Your task to perform on an android device: toggle javascript in the chrome app Image 0: 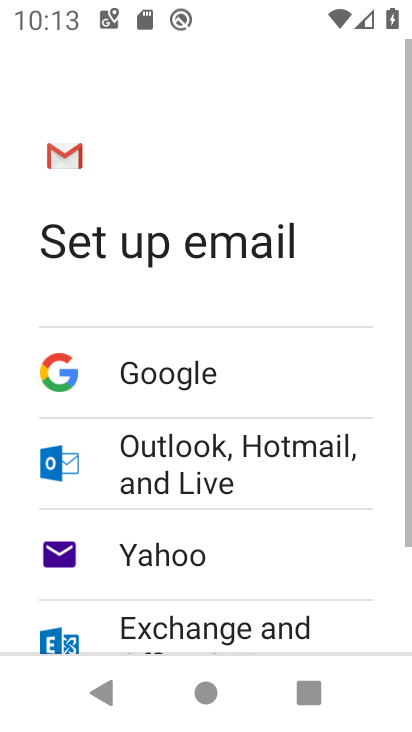
Step 0: press home button
Your task to perform on an android device: toggle javascript in the chrome app Image 1: 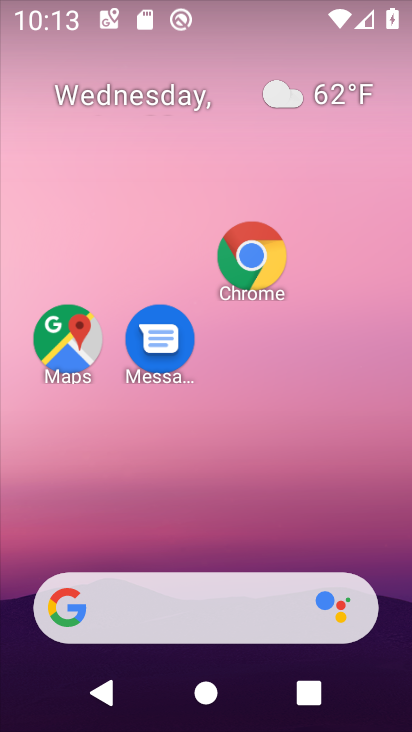
Step 1: click (253, 259)
Your task to perform on an android device: toggle javascript in the chrome app Image 2: 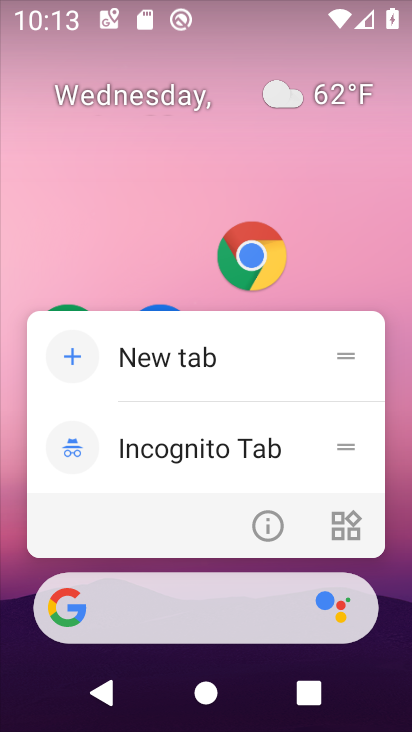
Step 2: click (307, 213)
Your task to perform on an android device: toggle javascript in the chrome app Image 3: 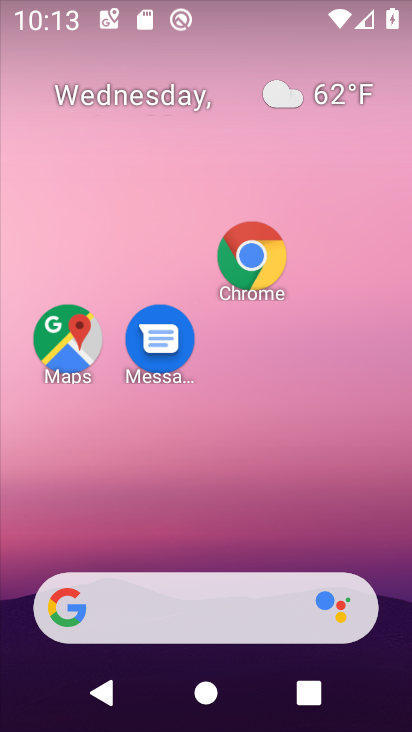
Step 3: click (247, 258)
Your task to perform on an android device: toggle javascript in the chrome app Image 4: 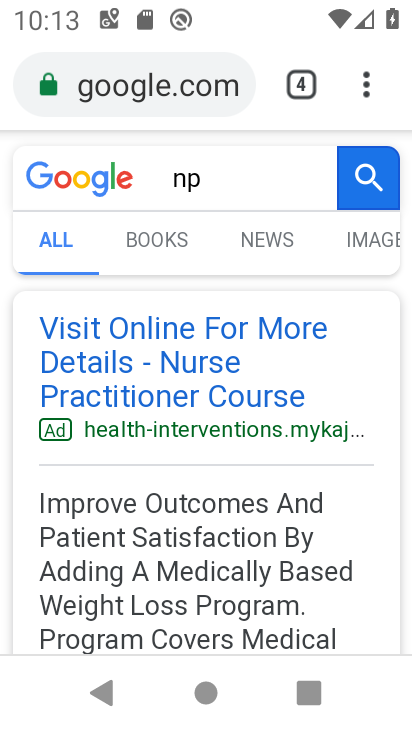
Step 4: click (360, 79)
Your task to perform on an android device: toggle javascript in the chrome app Image 5: 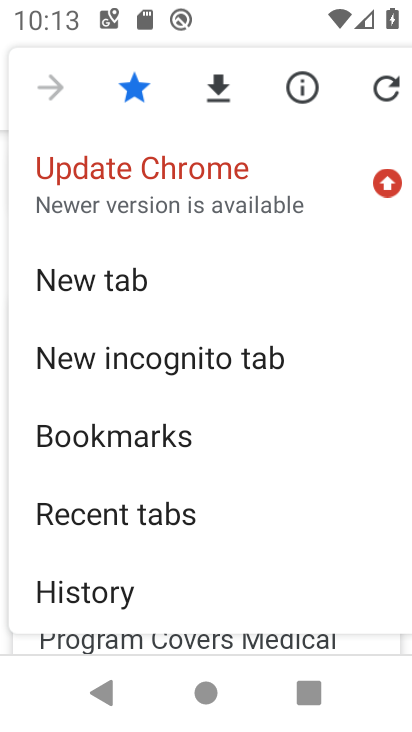
Step 5: drag from (265, 443) to (207, 81)
Your task to perform on an android device: toggle javascript in the chrome app Image 6: 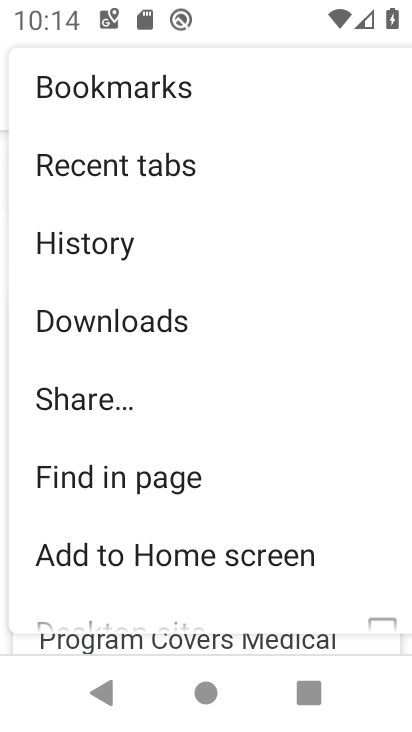
Step 6: drag from (227, 559) to (164, 212)
Your task to perform on an android device: toggle javascript in the chrome app Image 7: 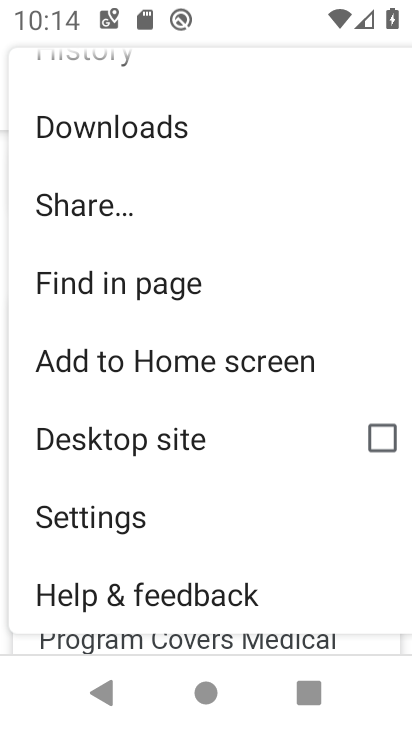
Step 7: click (113, 518)
Your task to perform on an android device: toggle javascript in the chrome app Image 8: 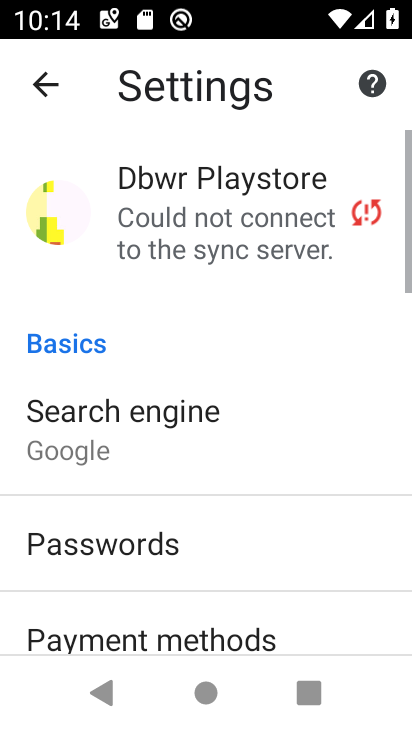
Step 8: drag from (236, 518) to (219, 77)
Your task to perform on an android device: toggle javascript in the chrome app Image 9: 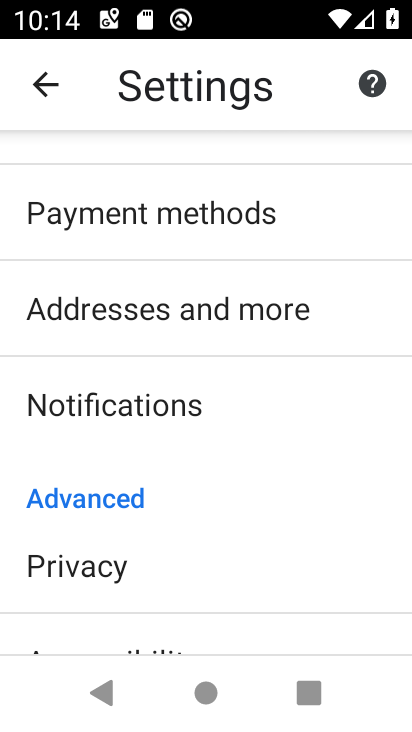
Step 9: drag from (194, 531) to (208, 283)
Your task to perform on an android device: toggle javascript in the chrome app Image 10: 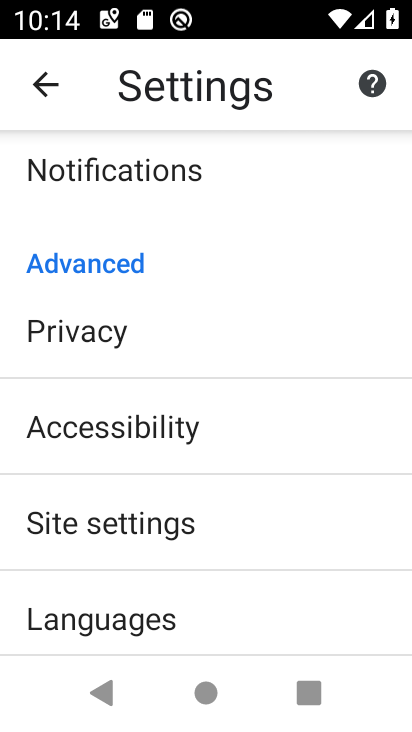
Step 10: drag from (206, 589) to (208, 452)
Your task to perform on an android device: toggle javascript in the chrome app Image 11: 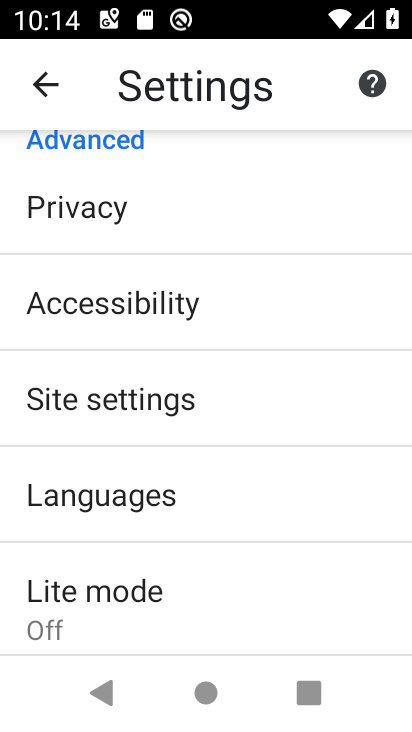
Step 11: click (134, 401)
Your task to perform on an android device: toggle javascript in the chrome app Image 12: 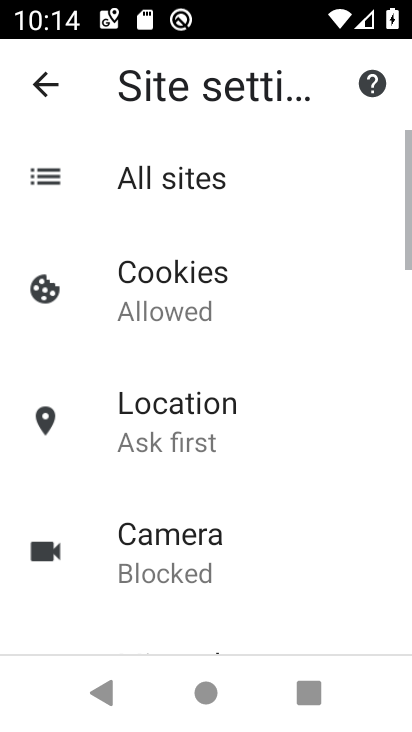
Step 12: drag from (242, 526) to (223, 203)
Your task to perform on an android device: toggle javascript in the chrome app Image 13: 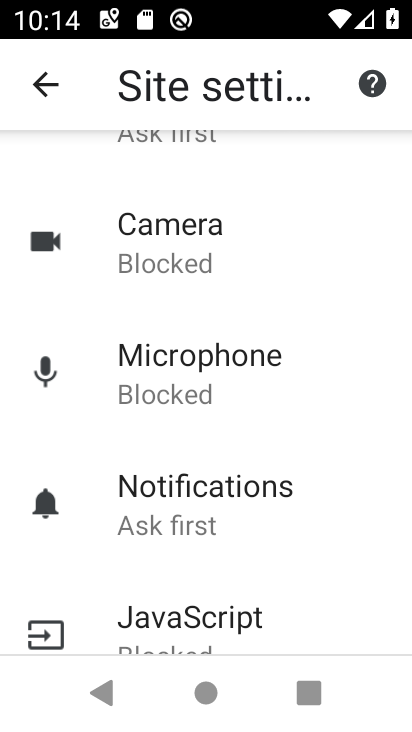
Step 13: click (214, 619)
Your task to perform on an android device: toggle javascript in the chrome app Image 14: 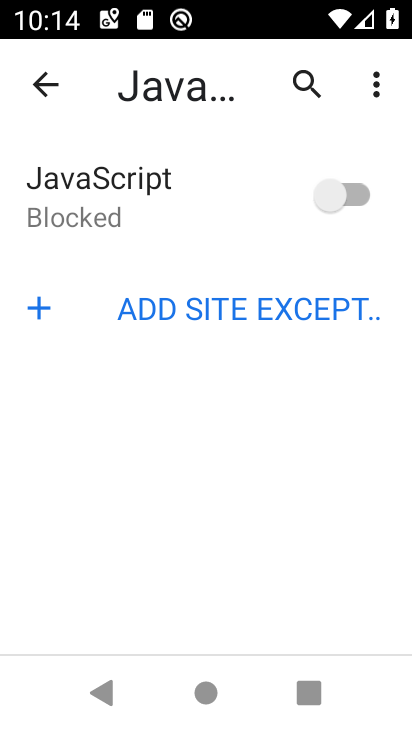
Step 14: click (342, 193)
Your task to perform on an android device: toggle javascript in the chrome app Image 15: 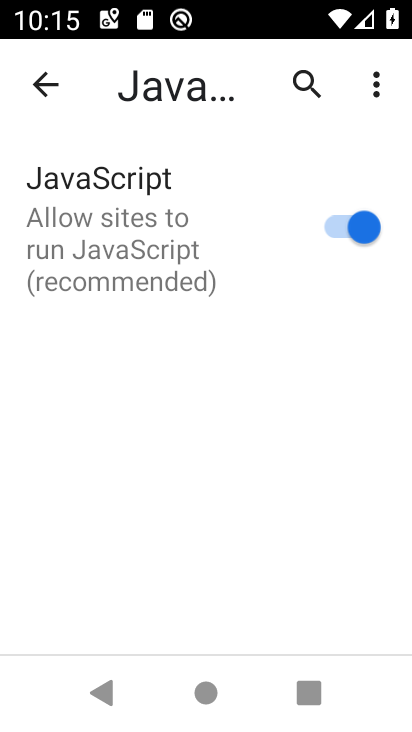
Step 15: task complete